Your task to perform on an android device: clear history in the chrome app Image 0: 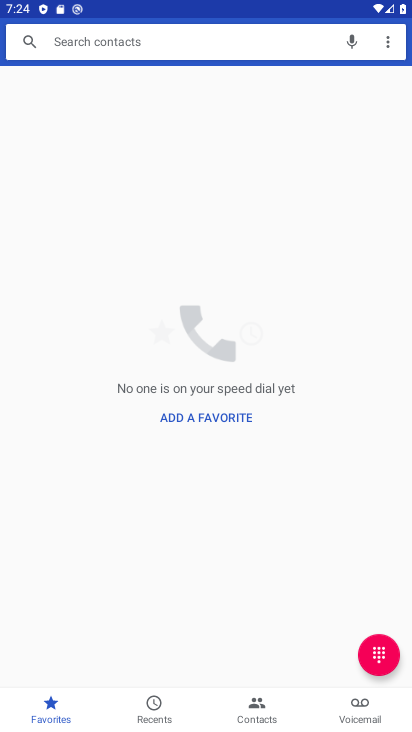
Step 0: press home button
Your task to perform on an android device: clear history in the chrome app Image 1: 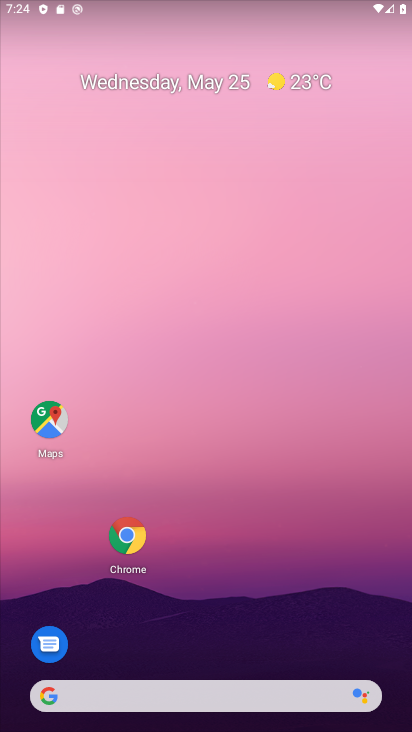
Step 1: drag from (218, 685) to (209, 250)
Your task to perform on an android device: clear history in the chrome app Image 2: 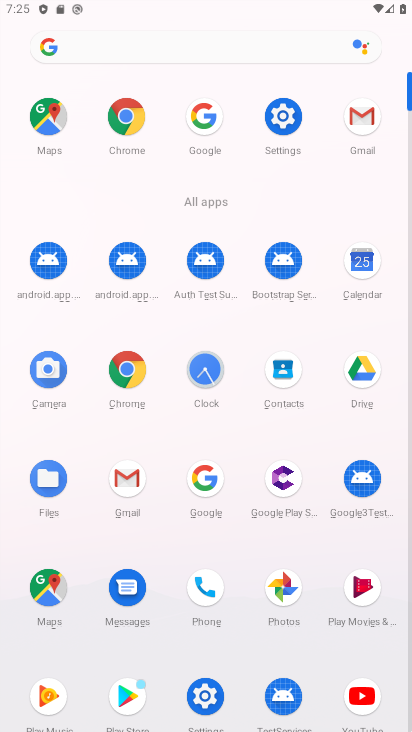
Step 2: click (111, 118)
Your task to perform on an android device: clear history in the chrome app Image 3: 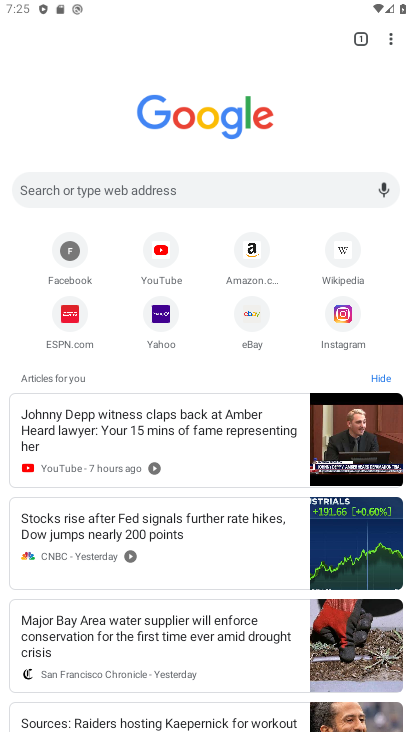
Step 3: drag from (386, 46) to (260, 223)
Your task to perform on an android device: clear history in the chrome app Image 4: 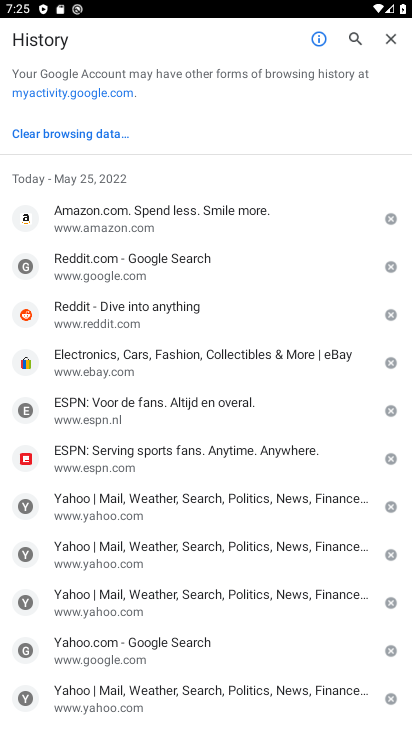
Step 4: click (75, 133)
Your task to perform on an android device: clear history in the chrome app Image 5: 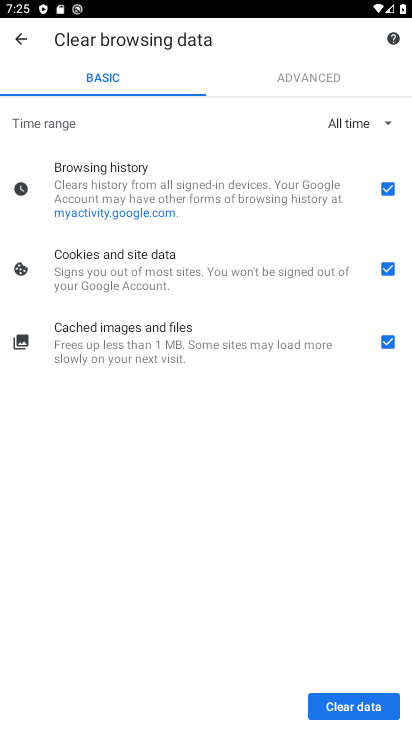
Step 5: click (372, 703)
Your task to perform on an android device: clear history in the chrome app Image 6: 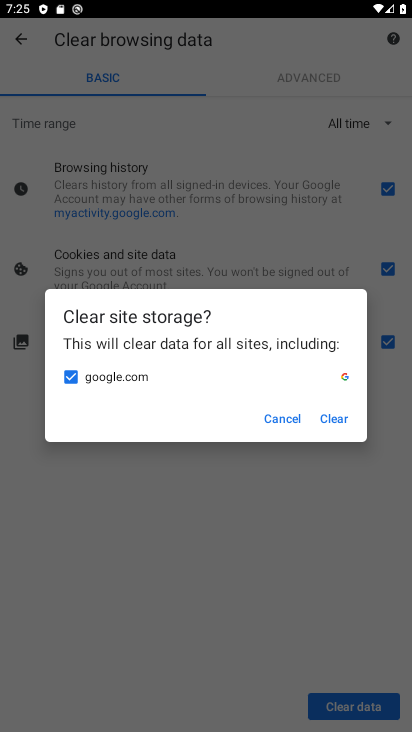
Step 6: click (332, 422)
Your task to perform on an android device: clear history in the chrome app Image 7: 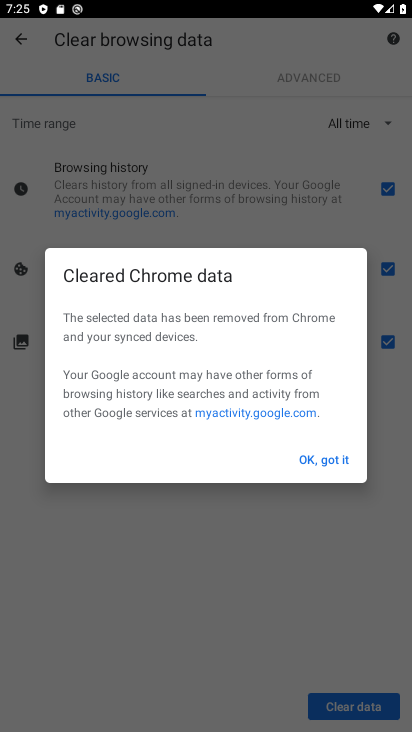
Step 7: click (328, 458)
Your task to perform on an android device: clear history in the chrome app Image 8: 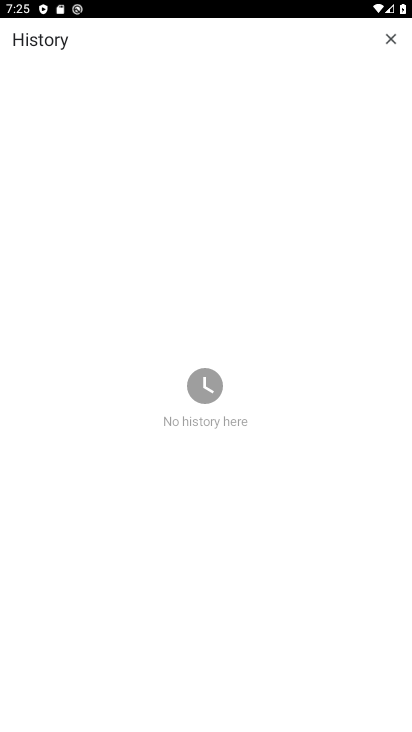
Step 8: task complete